Your task to perform on an android device: turn off notifications settings in the gmail app Image 0: 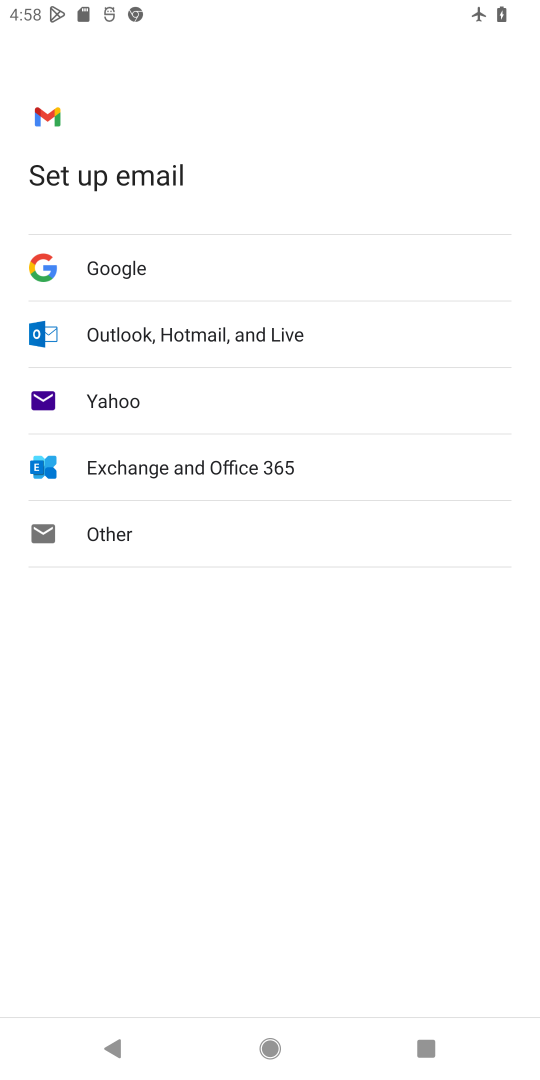
Step 0: press home button
Your task to perform on an android device: turn off notifications settings in the gmail app Image 1: 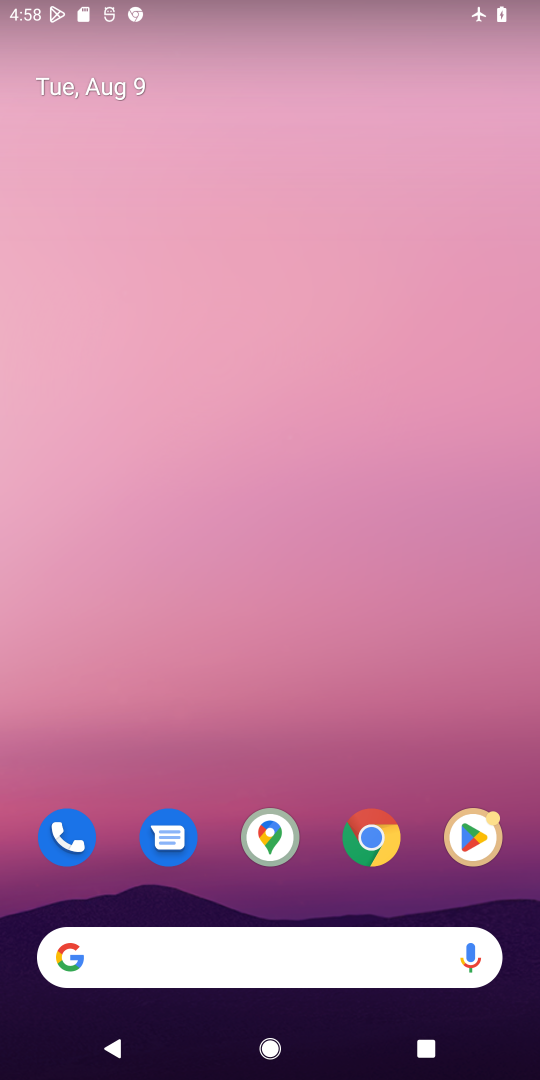
Step 1: drag from (207, 871) to (233, 30)
Your task to perform on an android device: turn off notifications settings in the gmail app Image 2: 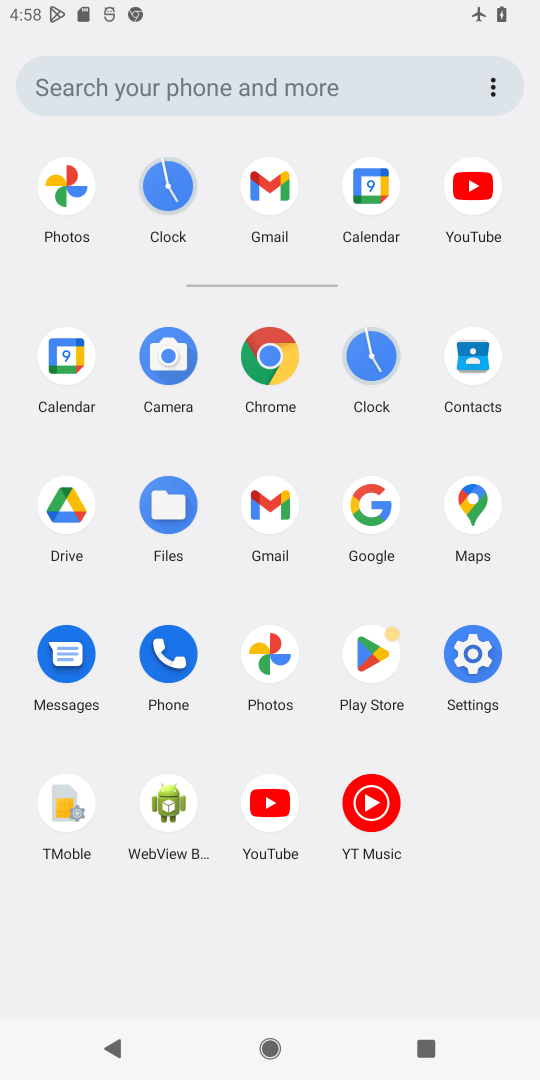
Step 2: click (277, 494)
Your task to perform on an android device: turn off notifications settings in the gmail app Image 3: 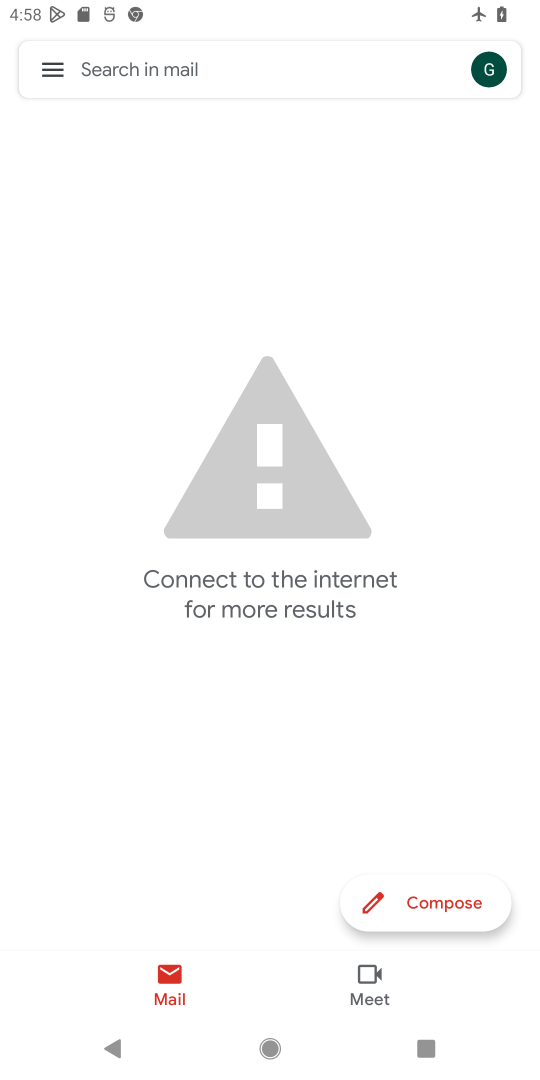
Step 3: click (46, 57)
Your task to perform on an android device: turn off notifications settings in the gmail app Image 4: 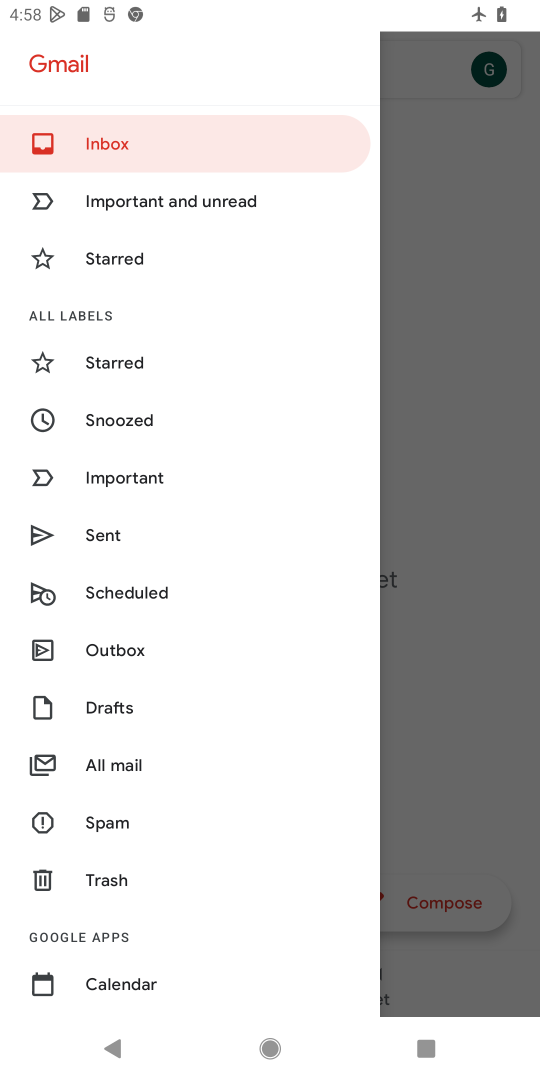
Step 4: drag from (90, 969) to (162, 312)
Your task to perform on an android device: turn off notifications settings in the gmail app Image 5: 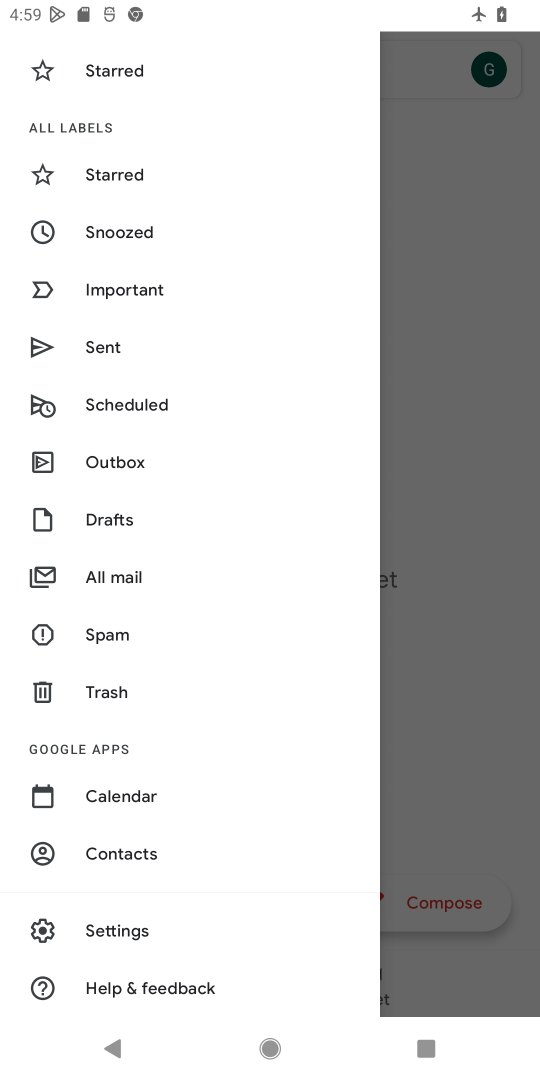
Step 5: click (104, 928)
Your task to perform on an android device: turn off notifications settings in the gmail app Image 6: 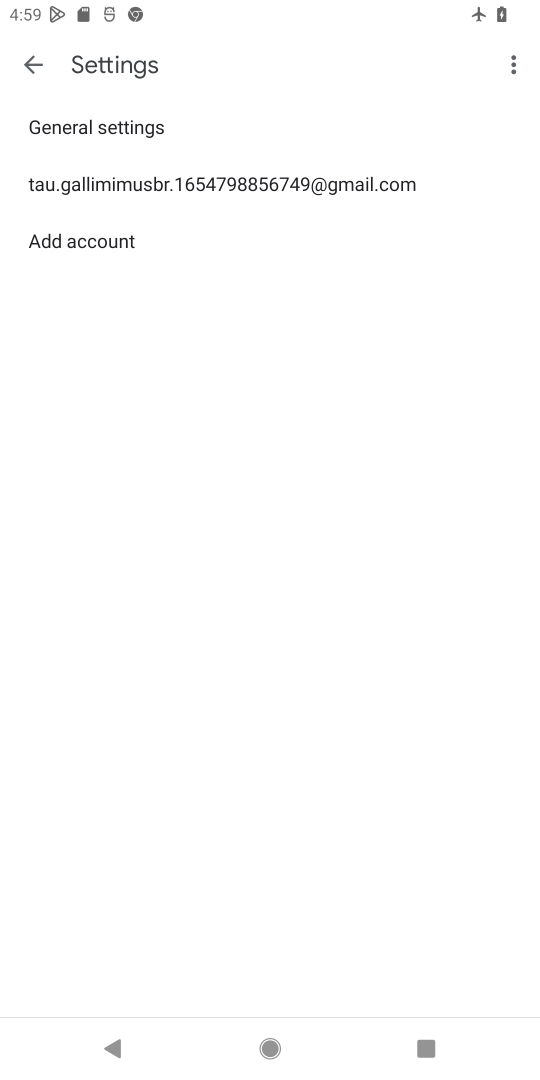
Step 6: click (255, 181)
Your task to perform on an android device: turn off notifications settings in the gmail app Image 7: 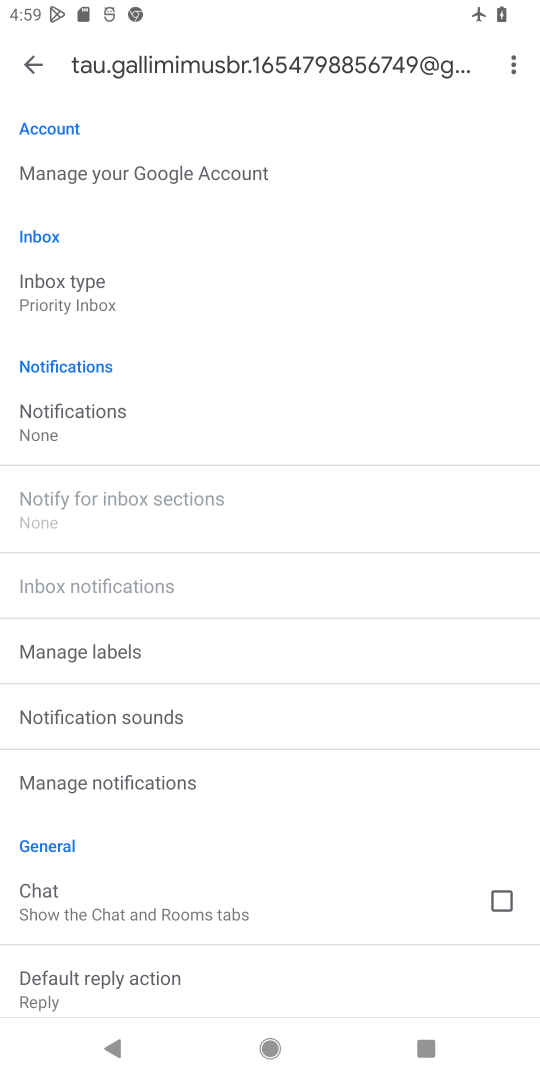
Step 7: click (131, 411)
Your task to perform on an android device: turn off notifications settings in the gmail app Image 8: 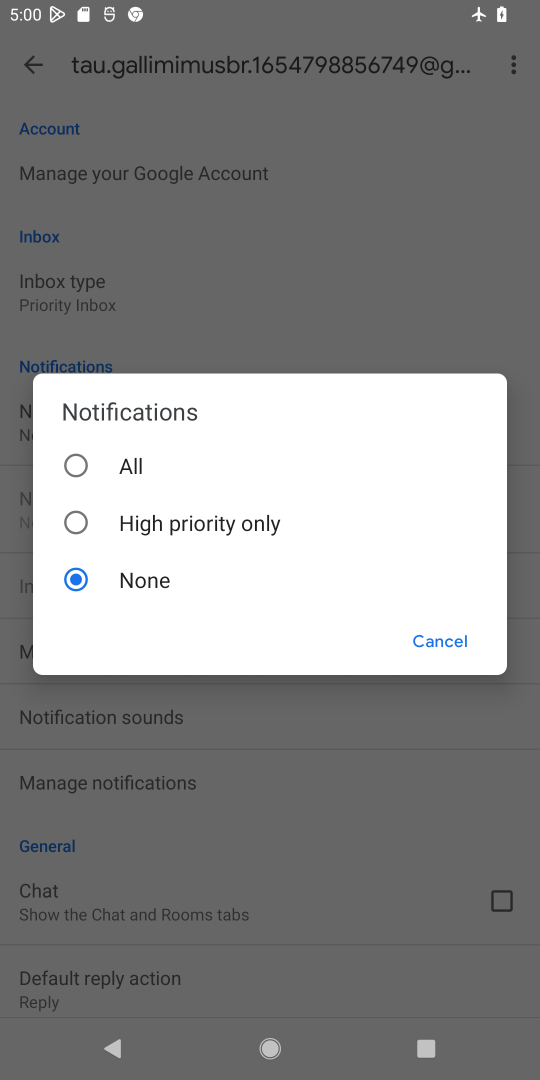
Step 8: task complete